Your task to perform on an android device: create a new album in the google photos Image 0: 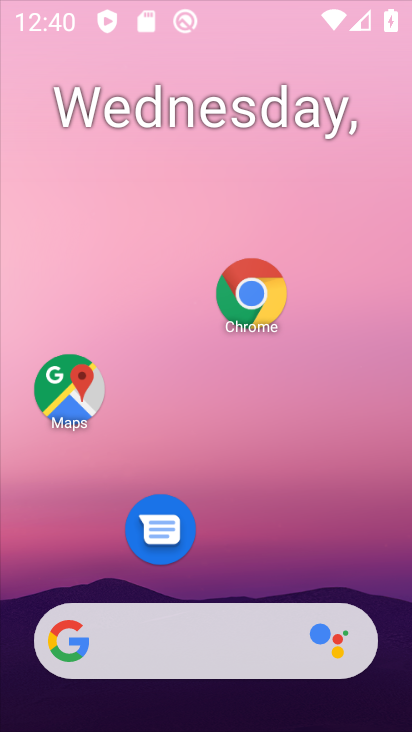
Step 0: drag from (259, 414) to (290, 216)
Your task to perform on an android device: create a new album in the google photos Image 1: 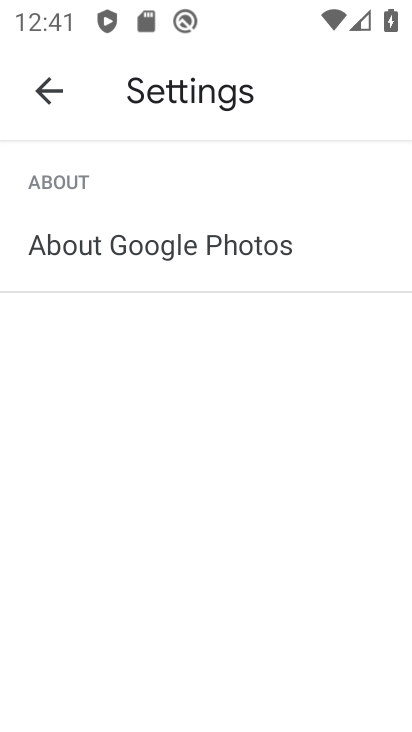
Step 1: press home button
Your task to perform on an android device: create a new album in the google photos Image 2: 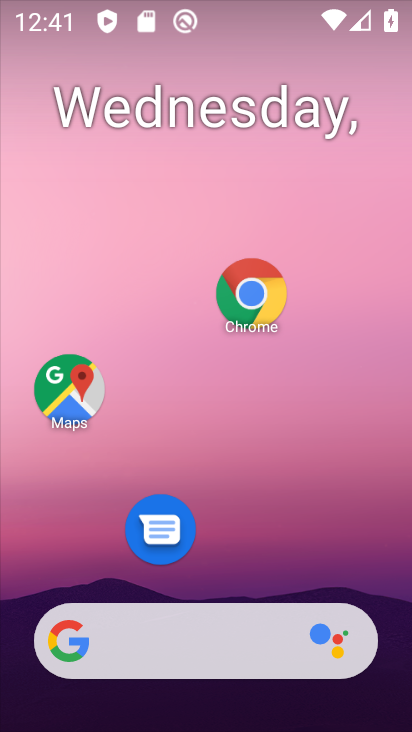
Step 2: drag from (277, 639) to (391, 146)
Your task to perform on an android device: create a new album in the google photos Image 3: 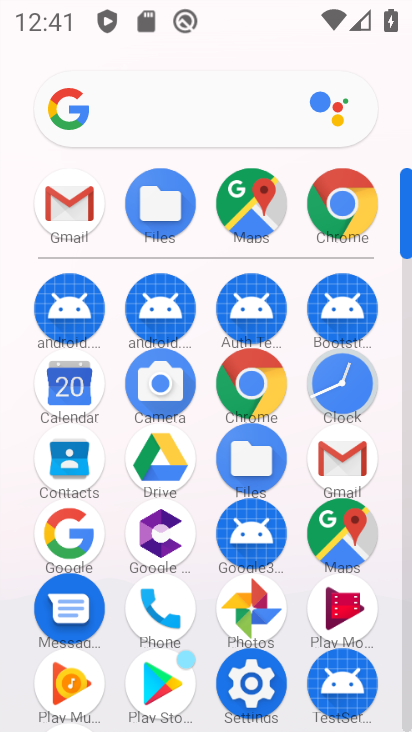
Step 3: click (411, 398)
Your task to perform on an android device: create a new album in the google photos Image 4: 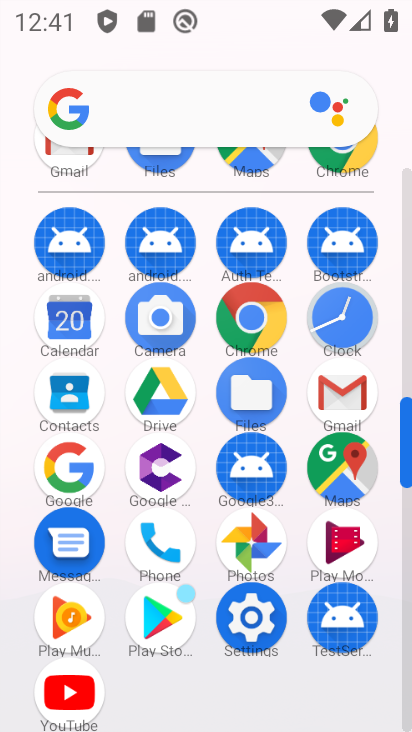
Step 4: click (233, 546)
Your task to perform on an android device: create a new album in the google photos Image 5: 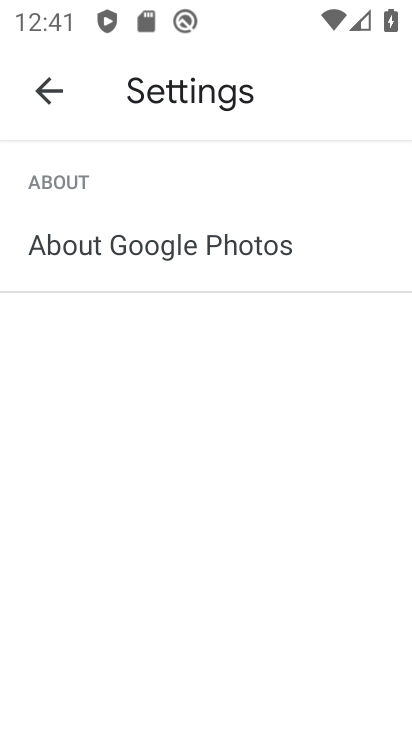
Step 5: click (57, 90)
Your task to perform on an android device: create a new album in the google photos Image 6: 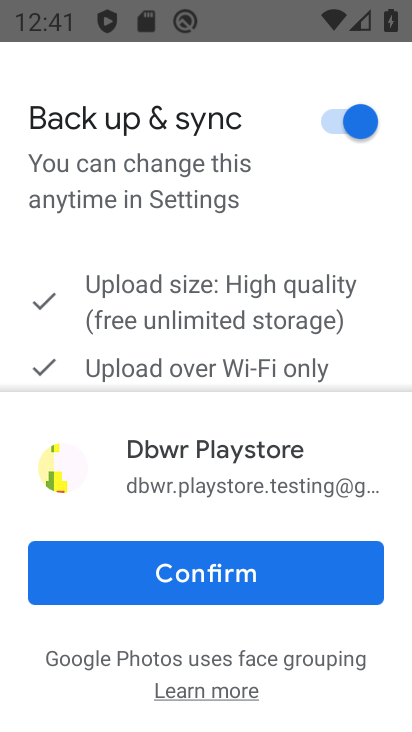
Step 6: click (251, 574)
Your task to perform on an android device: create a new album in the google photos Image 7: 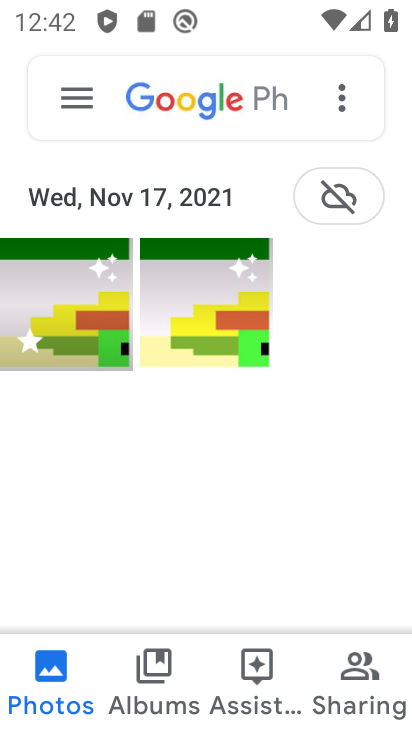
Step 7: click (151, 660)
Your task to perform on an android device: create a new album in the google photos Image 8: 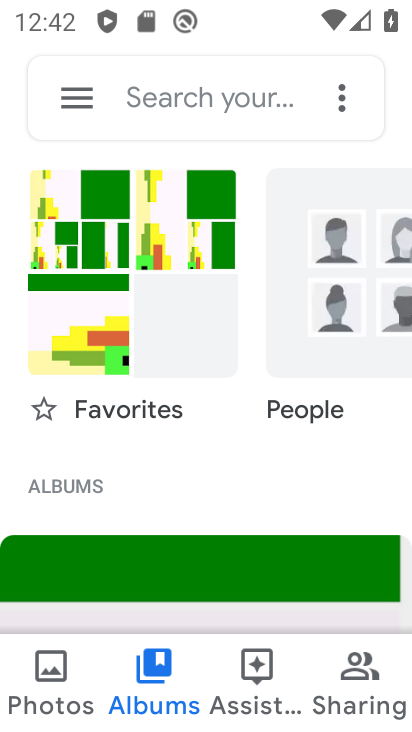
Step 8: drag from (169, 463) to (226, 146)
Your task to perform on an android device: create a new album in the google photos Image 9: 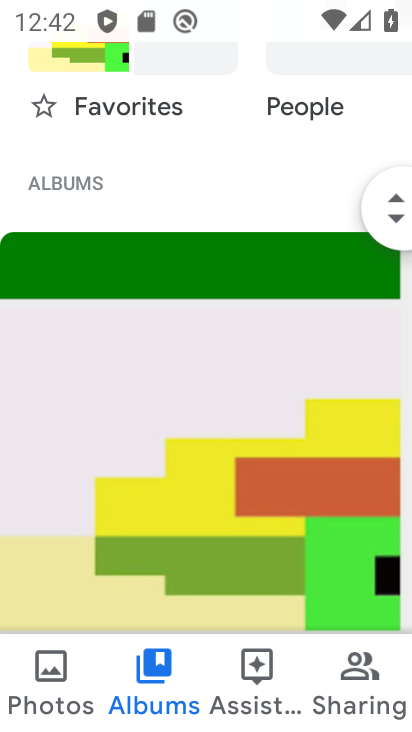
Step 9: drag from (208, 334) to (172, 546)
Your task to perform on an android device: create a new album in the google photos Image 10: 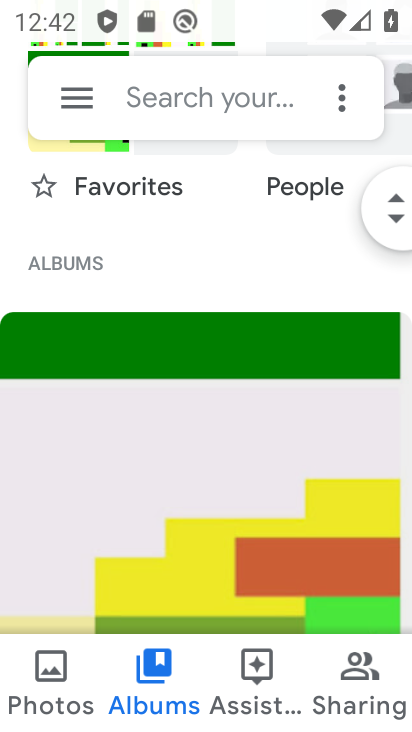
Step 10: drag from (209, 327) to (165, 598)
Your task to perform on an android device: create a new album in the google photos Image 11: 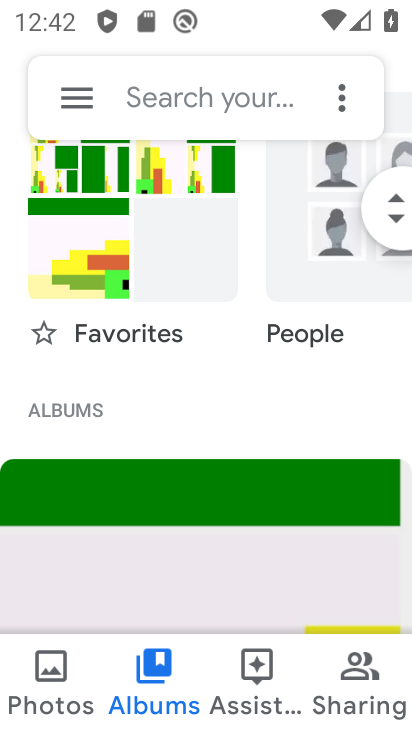
Step 11: drag from (230, 336) to (202, 551)
Your task to perform on an android device: create a new album in the google photos Image 12: 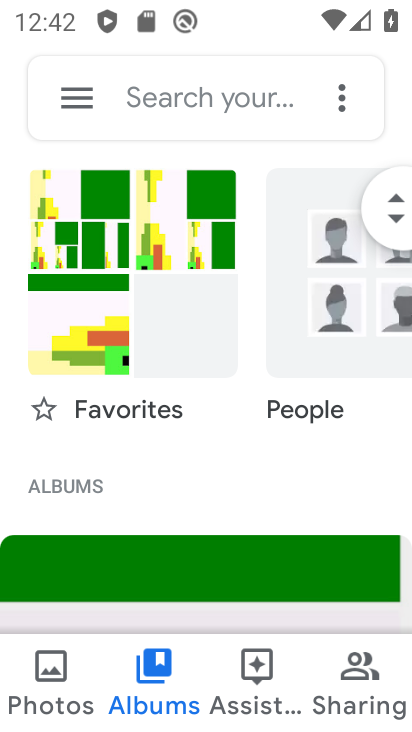
Step 12: click (351, 103)
Your task to perform on an android device: create a new album in the google photos Image 13: 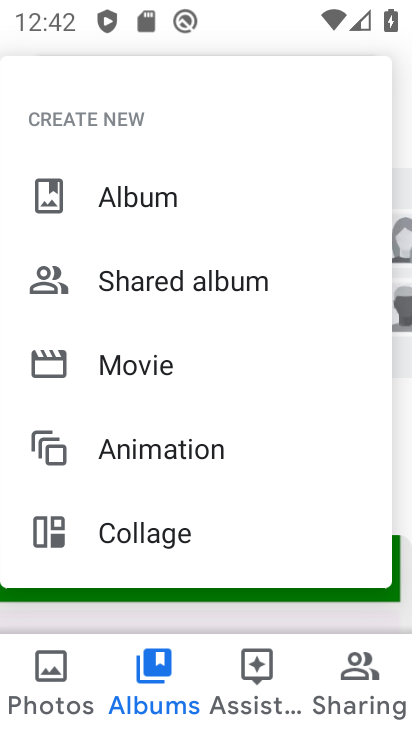
Step 13: drag from (167, 413) to (225, 103)
Your task to perform on an android device: create a new album in the google photos Image 14: 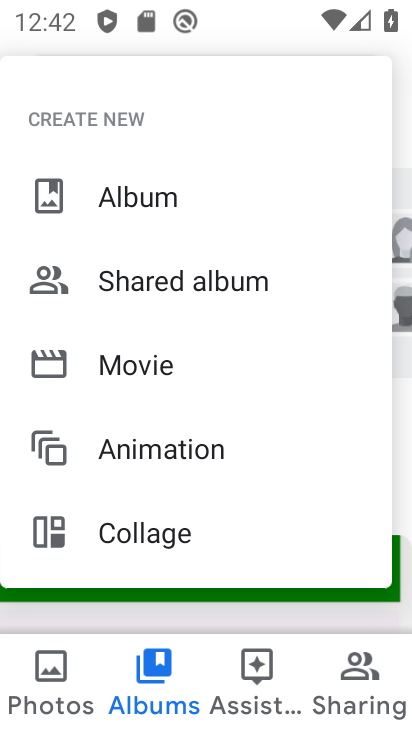
Step 14: drag from (216, 482) to (197, 149)
Your task to perform on an android device: create a new album in the google photos Image 15: 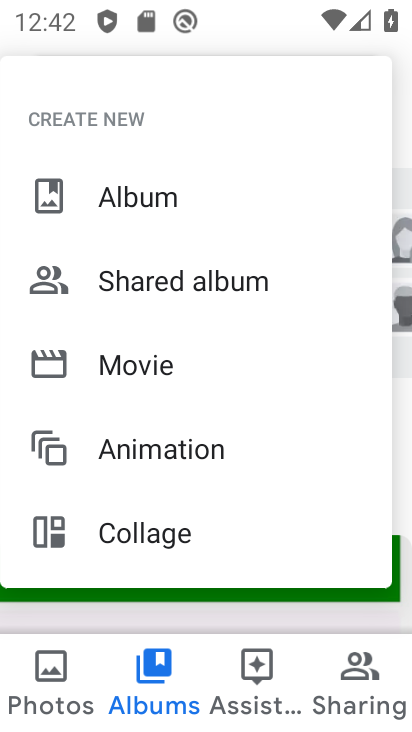
Step 15: drag from (213, 424) to (220, 115)
Your task to perform on an android device: create a new album in the google photos Image 16: 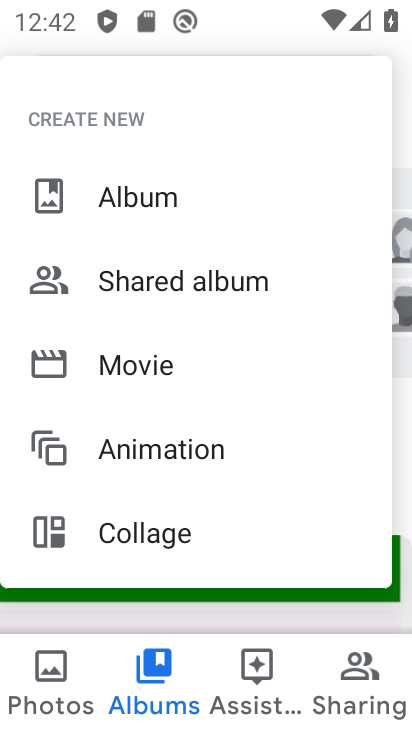
Step 16: click (81, 620)
Your task to perform on an android device: create a new album in the google photos Image 17: 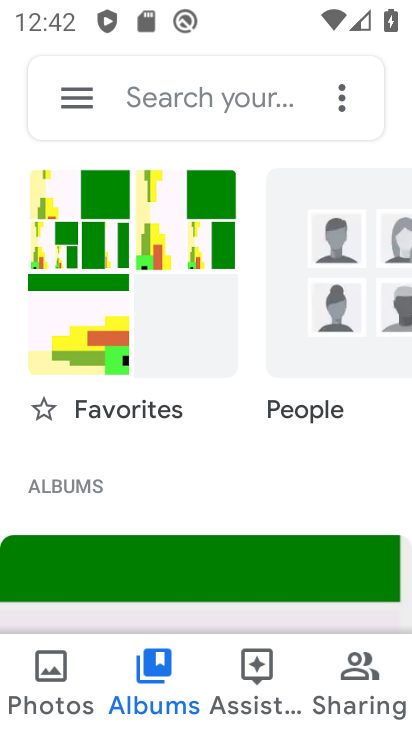
Step 17: task complete